Your task to perform on an android device: Add "lenovo thinkpad" to the cart on ebay, then select checkout. Image 0: 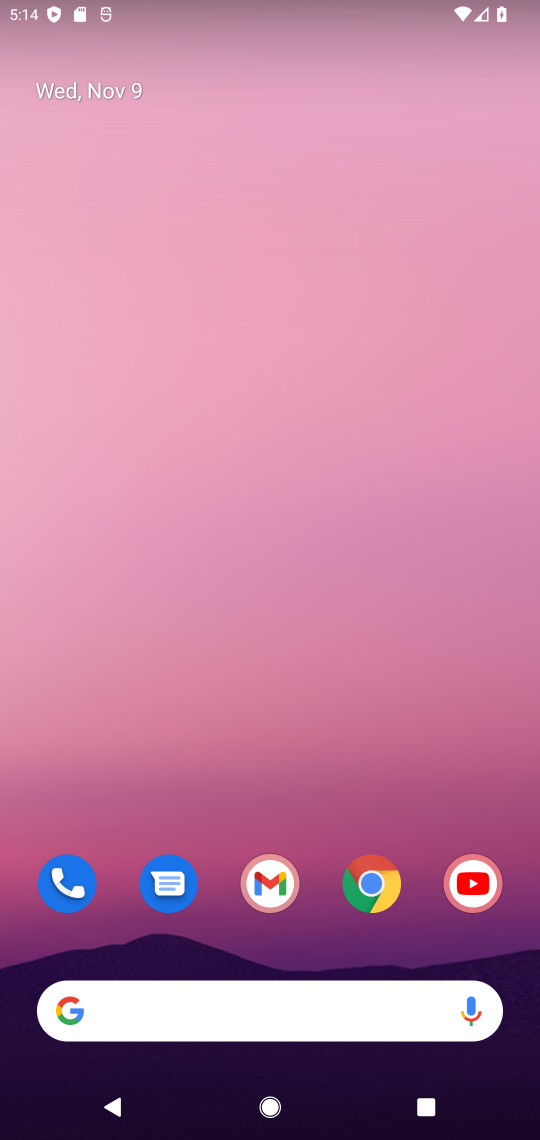
Step 0: click (375, 884)
Your task to perform on an android device: Add "lenovo thinkpad" to the cart on ebay, then select checkout. Image 1: 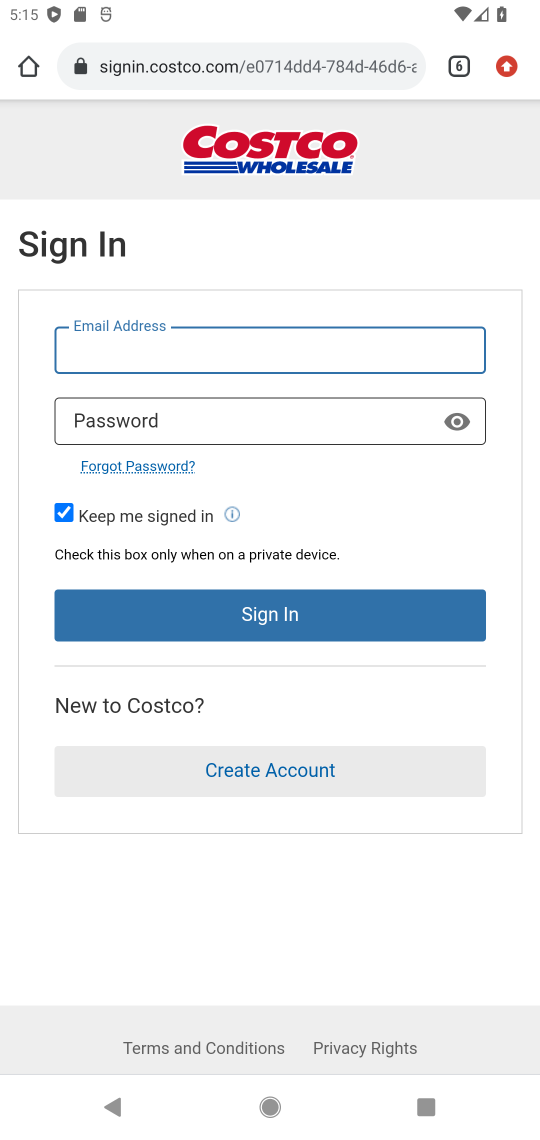
Step 1: click (461, 66)
Your task to perform on an android device: Add "lenovo thinkpad" to the cart on ebay, then select checkout. Image 2: 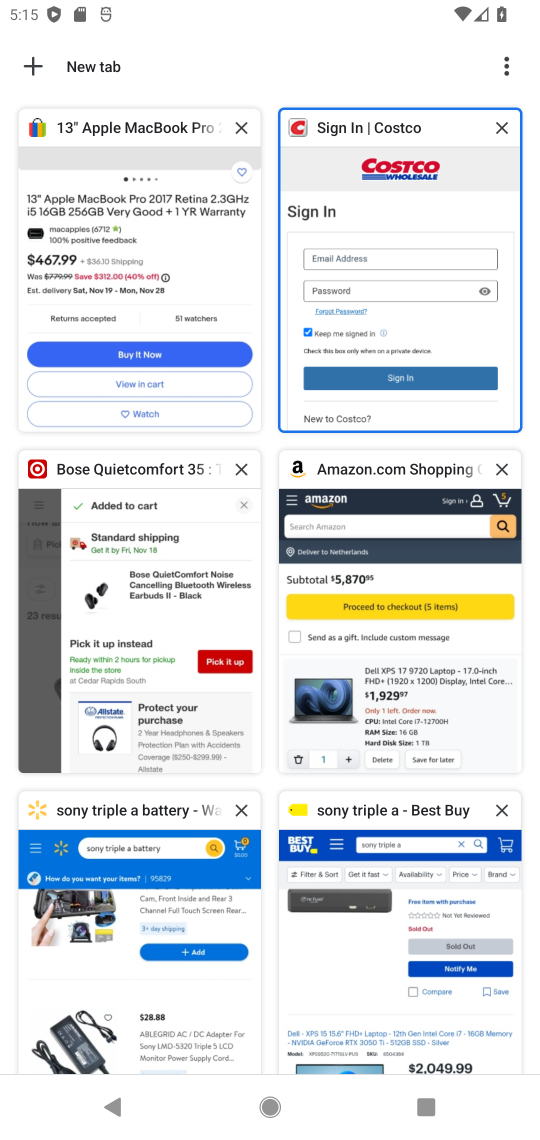
Step 2: click (42, 265)
Your task to perform on an android device: Add "lenovo thinkpad" to the cart on ebay, then select checkout. Image 3: 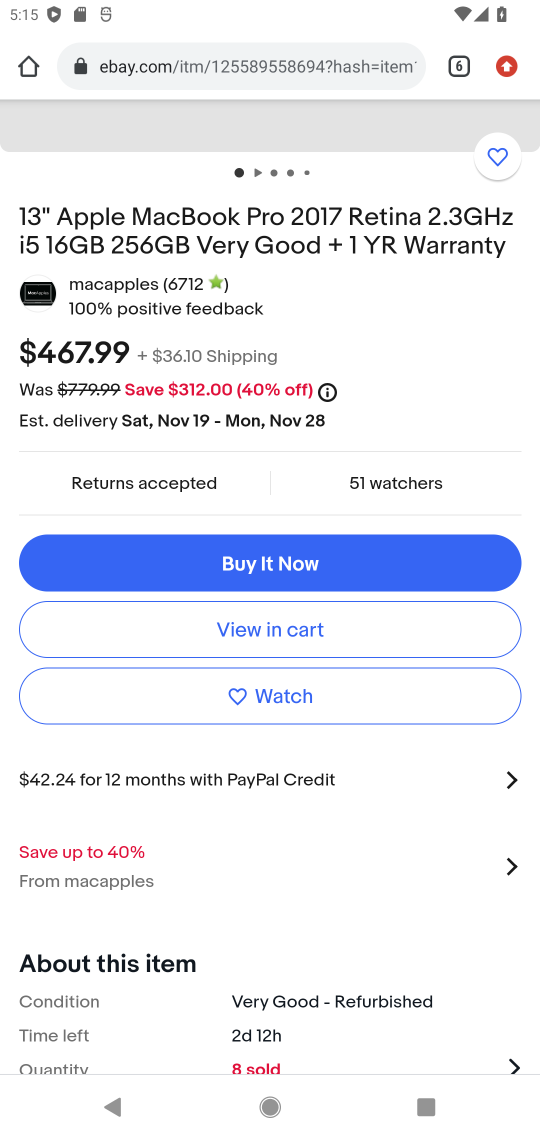
Step 3: drag from (419, 417) to (1, 607)
Your task to perform on an android device: Add "lenovo thinkpad" to the cart on ebay, then select checkout. Image 4: 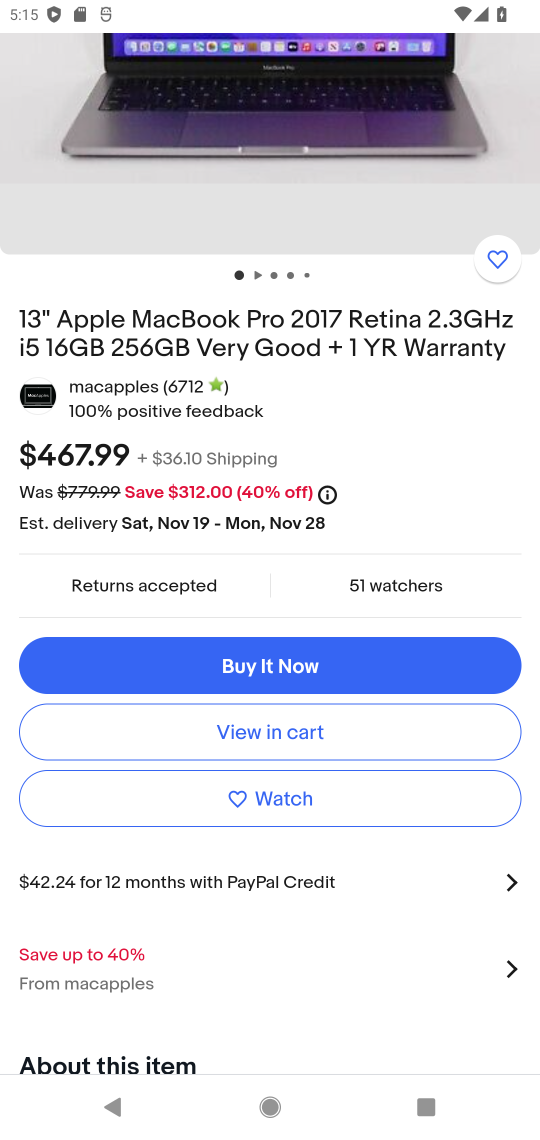
Step 4: click (323, 133)
Your task to perform on an android device: Add "lenovo thinkpad" to the cart on ebay, then select checkout. Image 5: 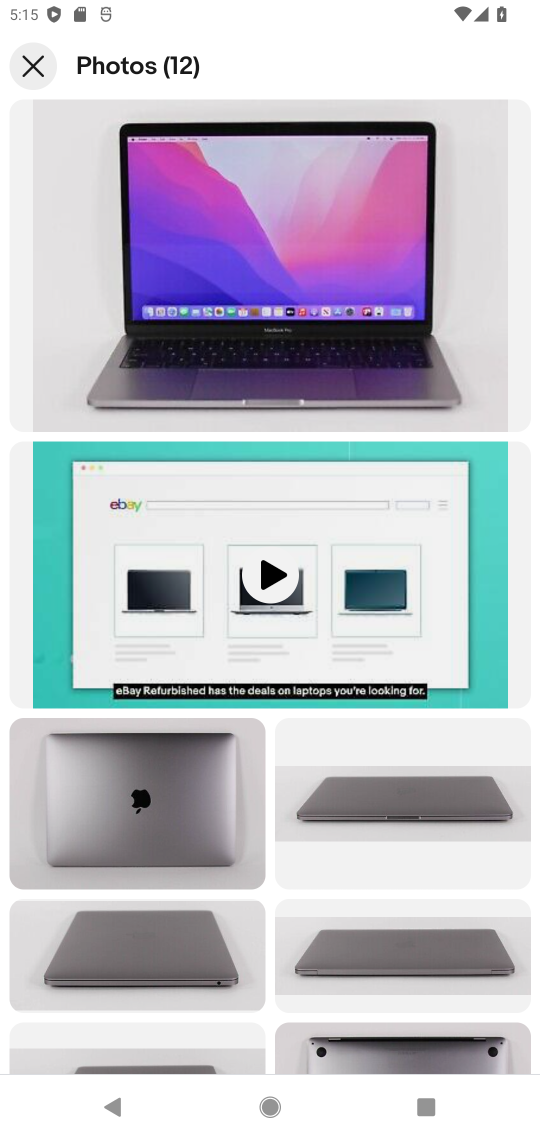
Step 5: click (21, 63)
Your task to perform on an android device: Add "lenovo thinkpad" to the cart on ebay, then select checkout. Image 6: 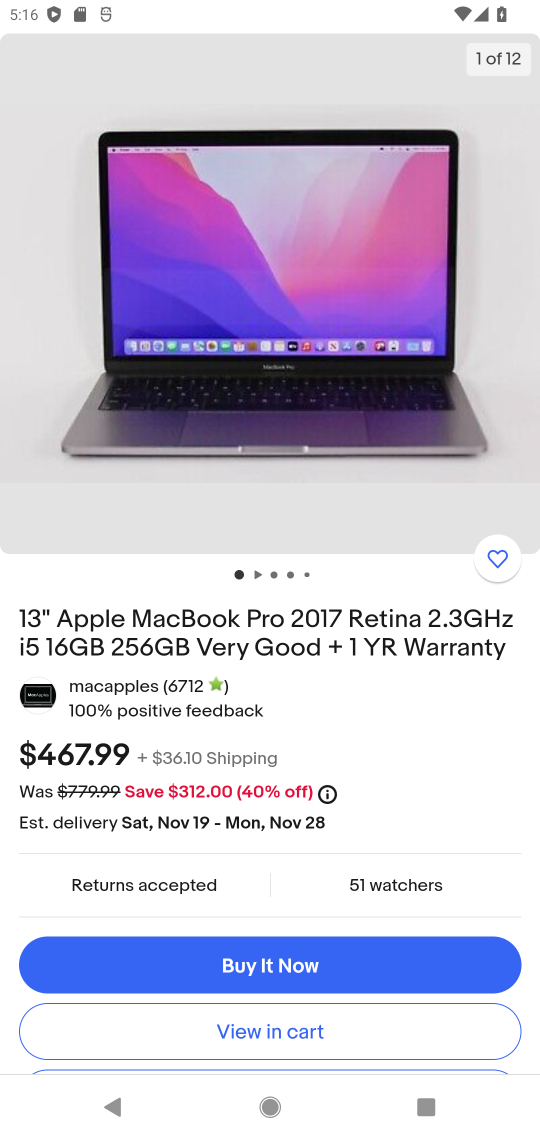
Step 6: press back button
Your task to perform on an android device: Add "lenovo thinkpad" to the cart on ebay, then select checkout. Image 7: 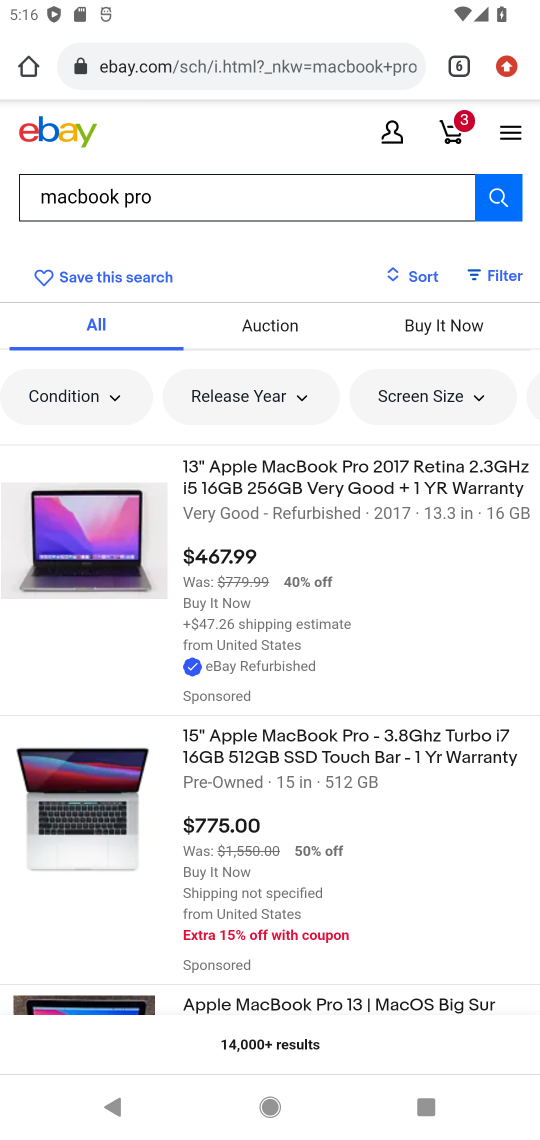
Step 7: click (188, 196)
Your task to perform on an android device: Add "lenovo thinkpad" to the cart on ebay, then select checkout. Image 8: 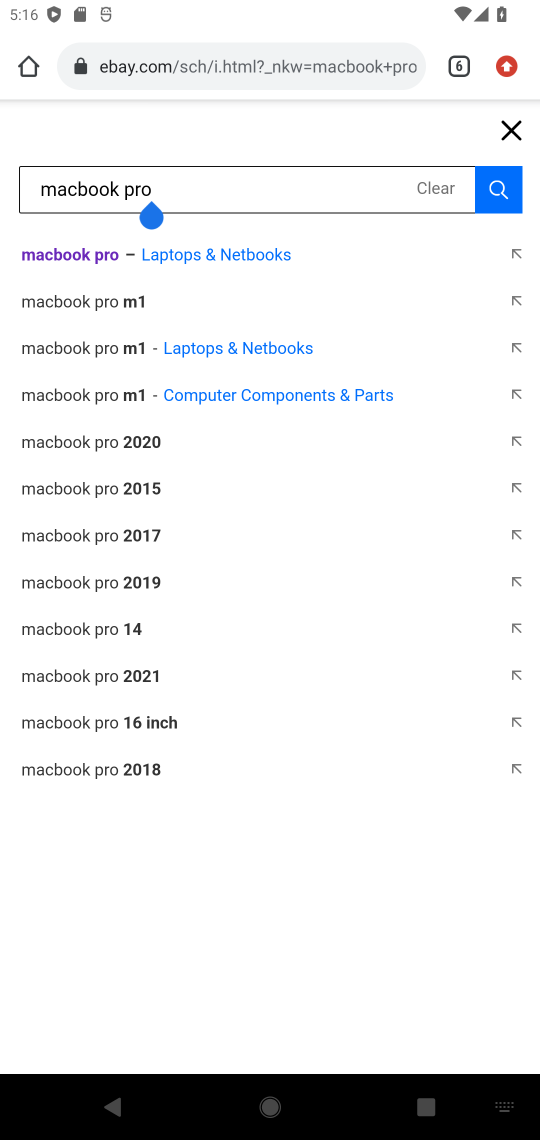
Step 8: click (423, 189)
Your task to perform on an android device: Add "lenovo thinkpad" to the cart on ebay, then select checkout. Image 9: 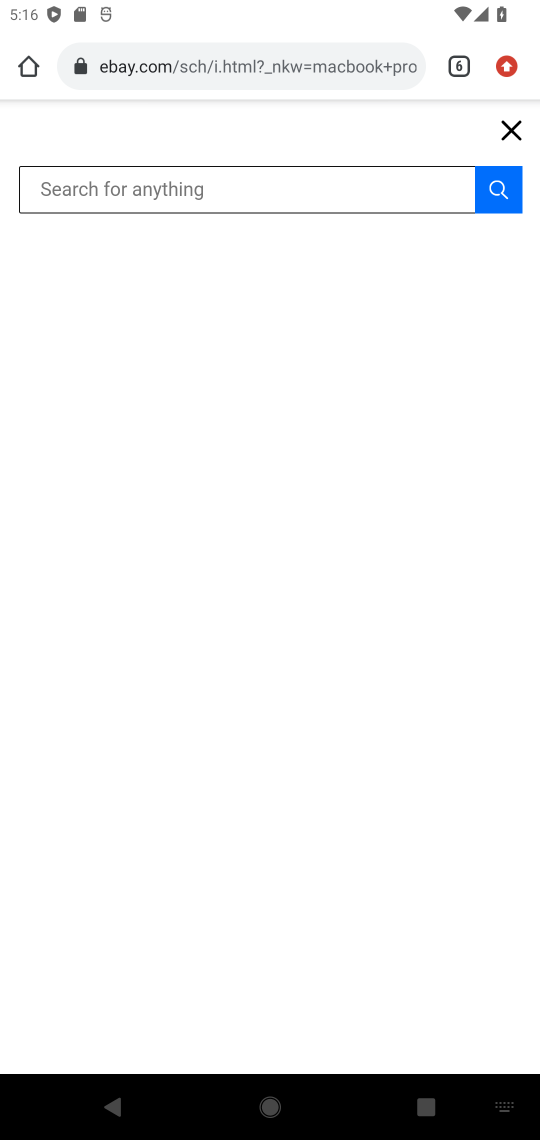
Step 9: type "lenovo thinkpad"
Your task to perform on an android device: Add "lenovo thinkpad" to the cart on ebay, then select checkout. Image 10: 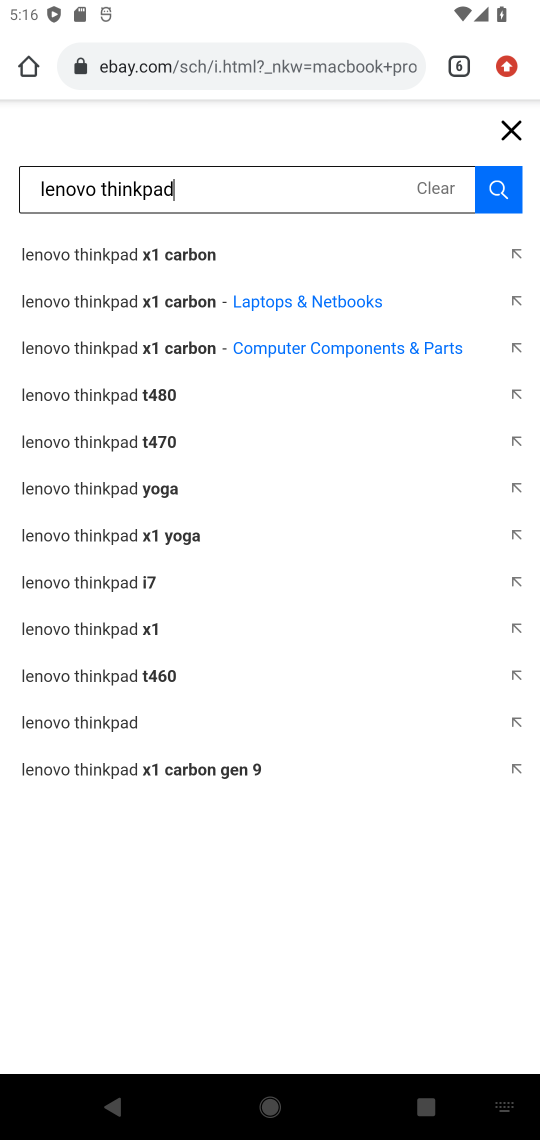
Step 10: click (173, 291)
Your task to perform on an android device: Add "lenovo thinkpad" to the cart on ebay, then select checkout. Image 11: 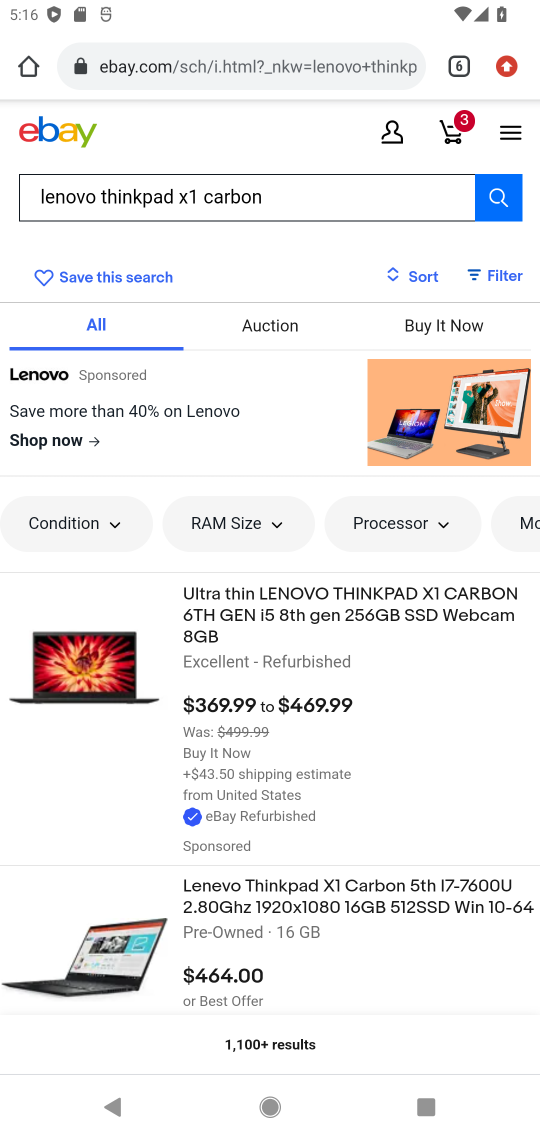
Step 11: click (281, 909)
Your task to perform on an android device: Add "lenovo thinkpad" to the cart on ebay, then select checkout. Image 12: 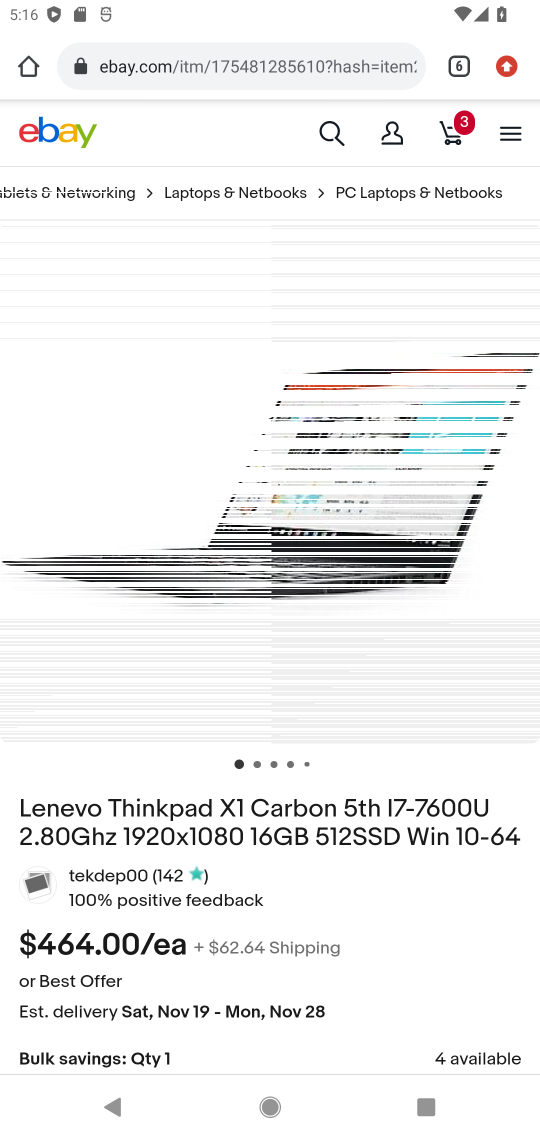
Step 12: drag from (281, 909) to (368, 383)
Your task to perform on an android device: Add "lenovo thinkpad" to the cart on ebay, then select checkout. Image 13: 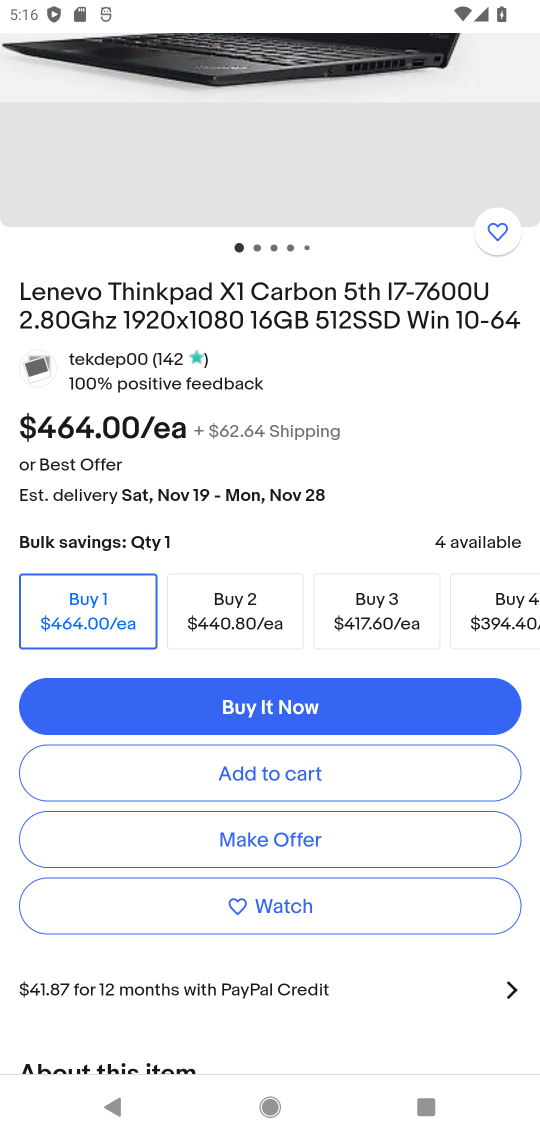
Step 13: click (280, 769)
Your task to perform on an android device: Add "lenovo thinkpad" to the cart on ebay, then select checkout. Image 14: 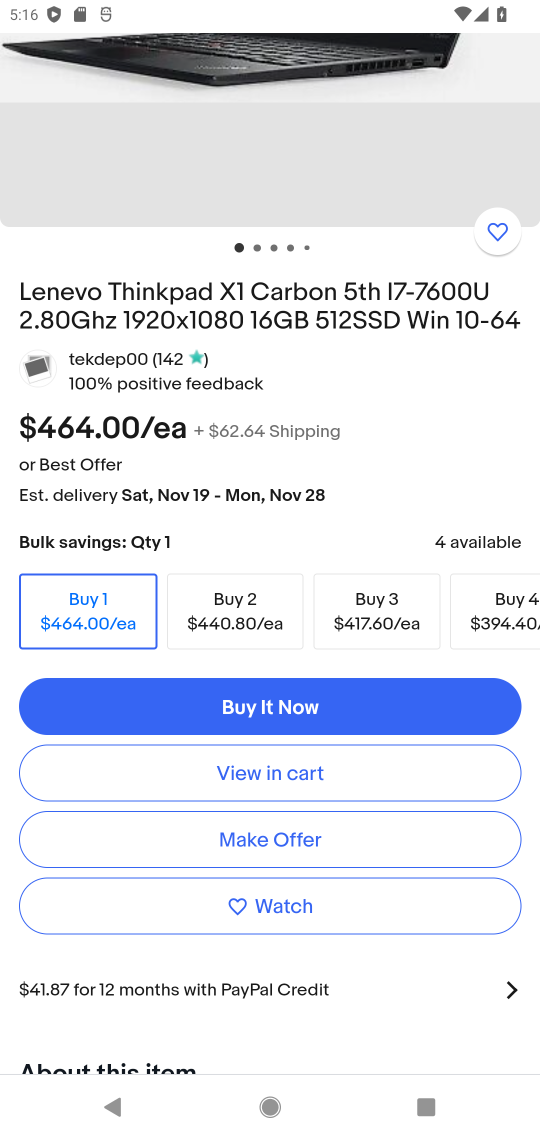
Step 14: click (280, 769)
Your task to perform on an android device: Add "lenovo thinkpad" to the cart on ebay, then select checkout. Image 15: 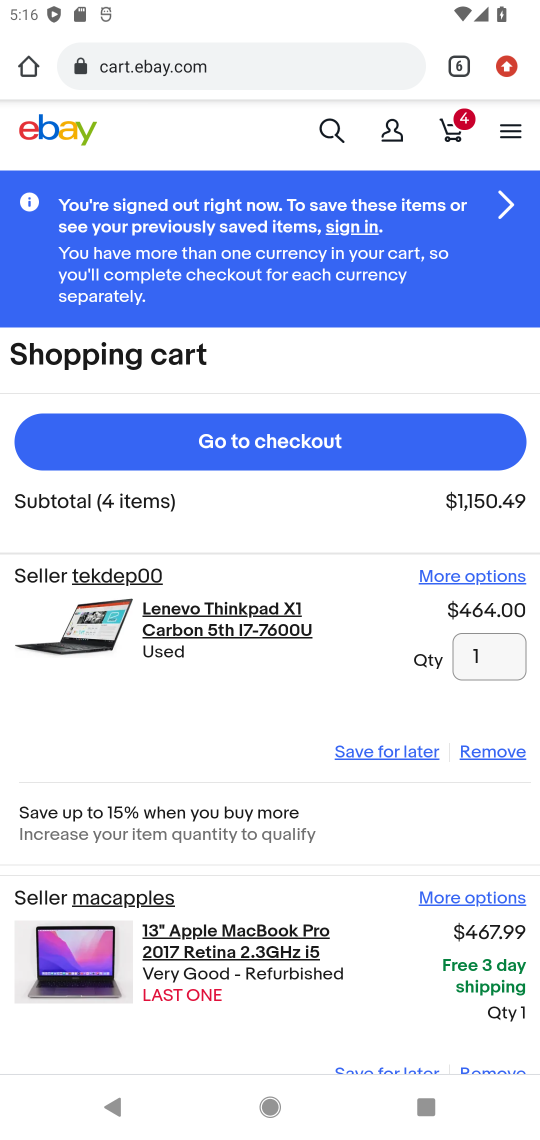
Step 15: click (307, 451)
Your task to perform on an android device: Add "lenovo thinkpad" to the cart on ebay, then select checkout. Image 16: 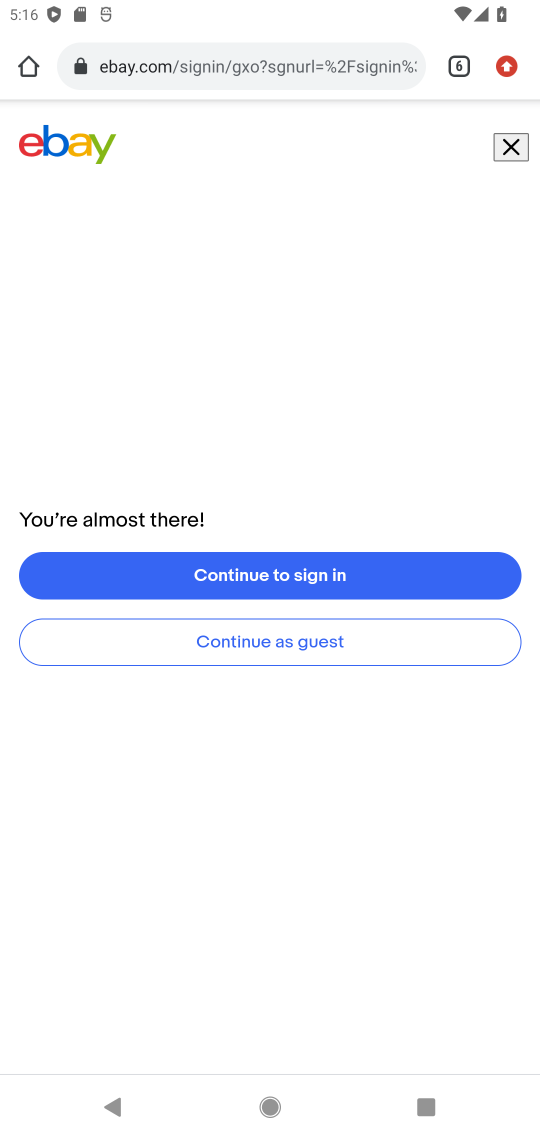
Step 16: task complete